Your task to perform on an android device: snooze an email in the gmail app Image 0: 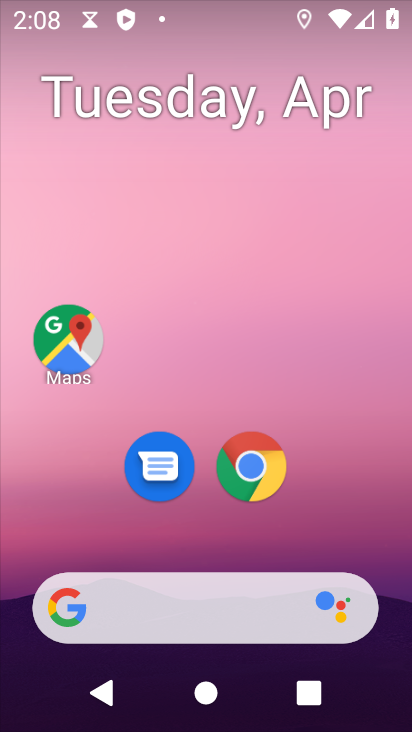
Step 0: drag from (334, 471) to (277, 57)
Your task to perform on an android device: snooze an email in the gmail app Image 1: 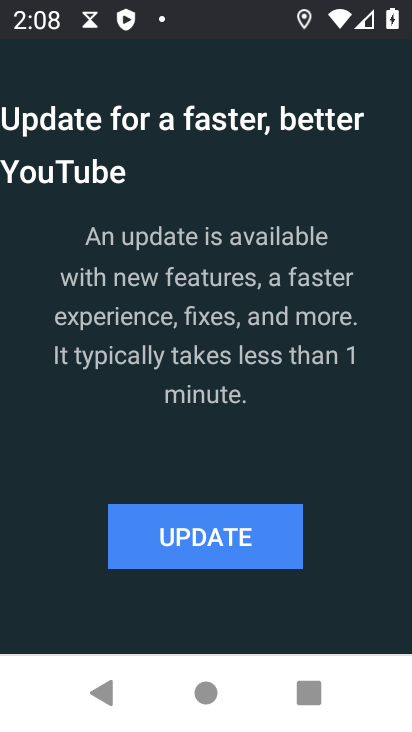
Step 1: press back button
Your task to perform on an android device: snooze an email in the gmail app Image 2: 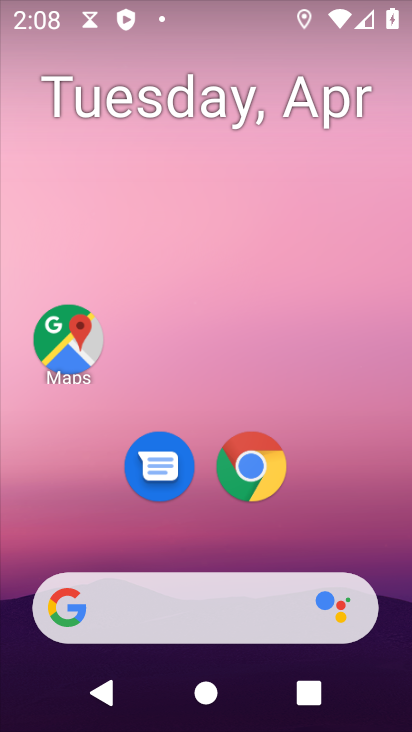
Step 2: drag from (373, 564) to (247, 16)
Your task to perform on an android device: snooze an email in the gmail app Image 3: 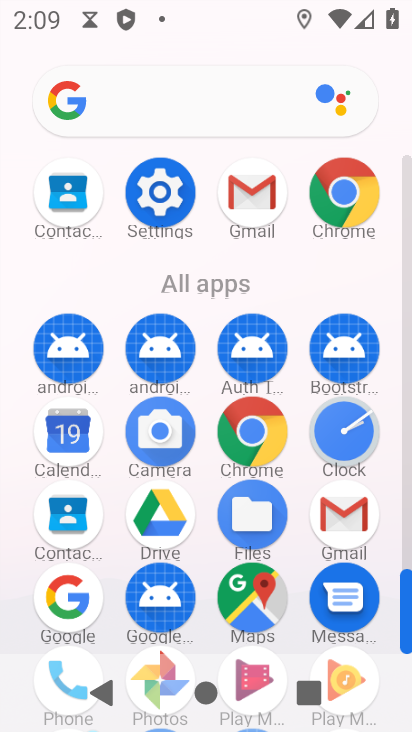
Step 3: click (251, 187)
Your task to perform on an android device: snooze an email in the gmail app Image 4: 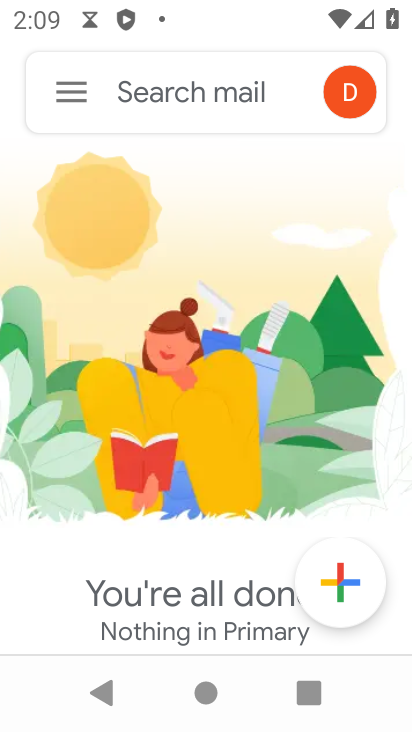
Step 4: click (79, 102)
Your task to perform on an android device: snooze an email in the gmail app Image 5: 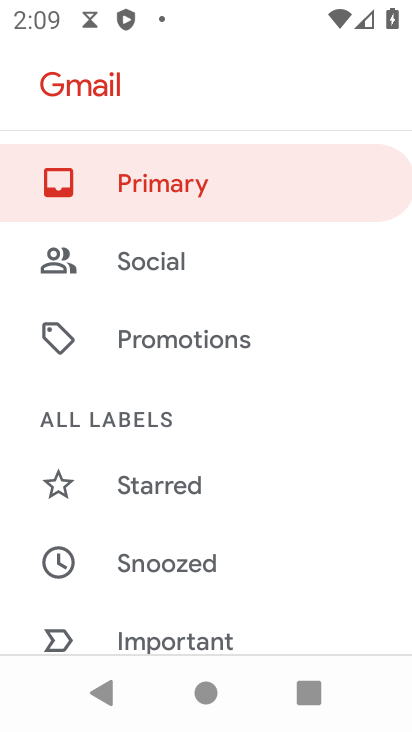
Step 5: drag from (239, 554) to (262, 233)
Your task to perform on an android device: snooze an email in the gmail app Image 6: 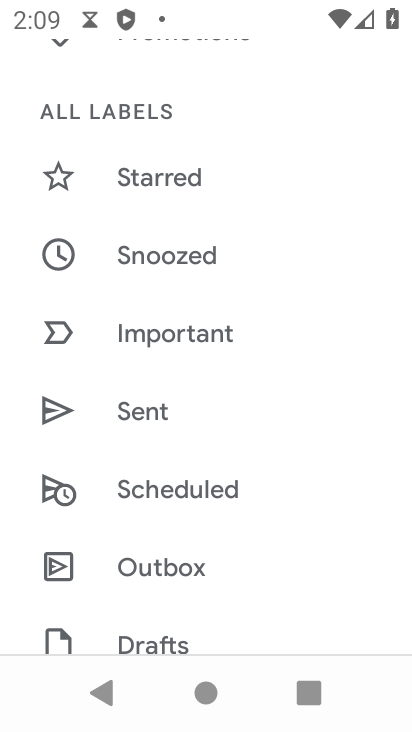
Step 6: drag from (239, 548) to (241, 120)
Your task to perform on an android device: snooze an email in the gmail app Image 7: 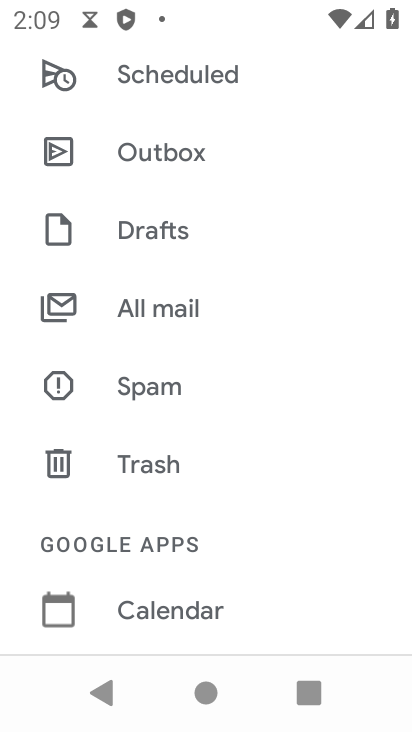
Step 7: drag from (241, 519) to (250, 129)
Your task to perform on an android device: snooze an email in the gmail app Image 8: 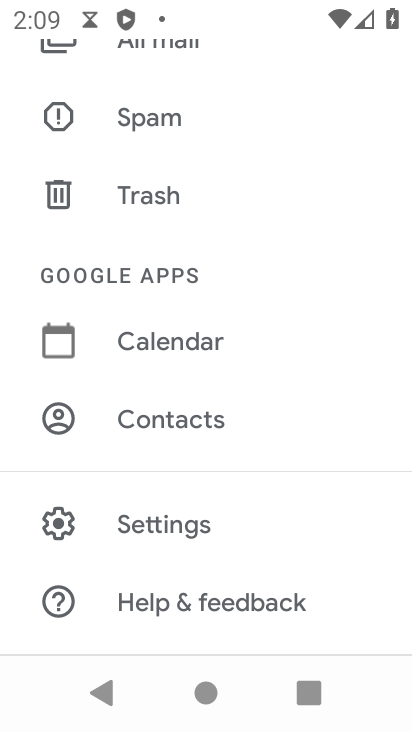
Step 8: drag from (214, 512) to (239, 179)
Your task to perform on an android device: snooze an email in the gmail app Image 9: 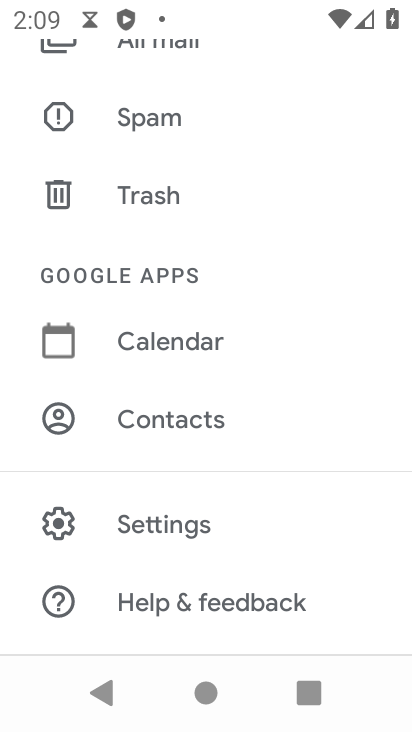
Step 9: click (189, 517)
Your task to perform on an android device: snooze an email in the gmail app Image 10: 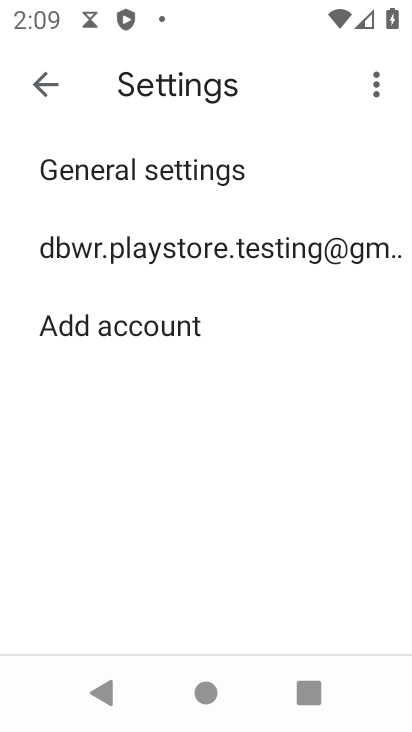
Step 10: click (241, 250)
Your task to perform on an android device: snooze an email in the gmail app Image 11: 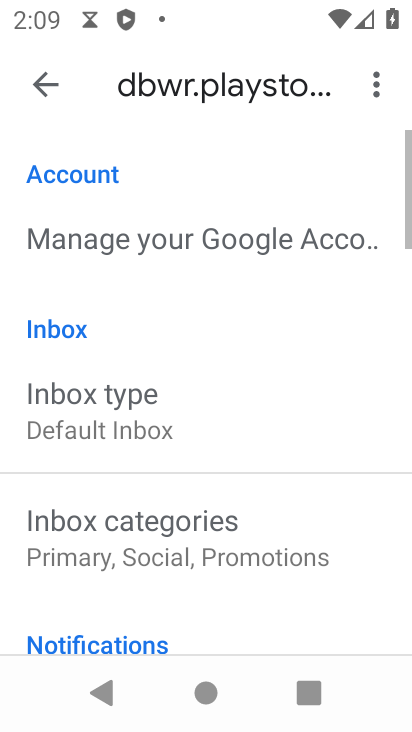
Step 11: click (81, 80)
Your task to perform on an android device: snooze an email in the gmail app Image 12: 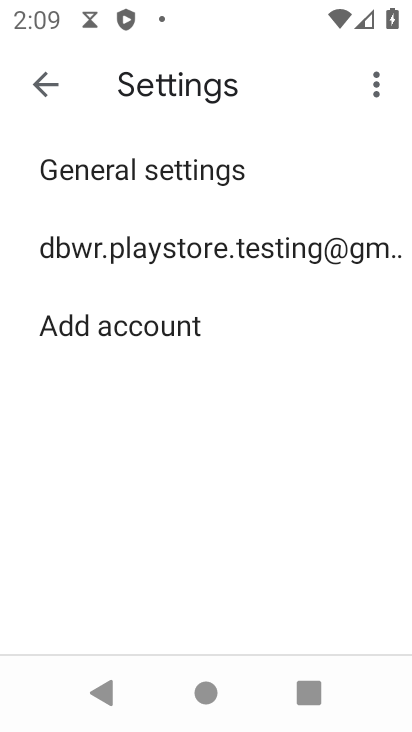
Step 12: click (81, 80)
Your task to perform on an android device: snooze an email in the gmail app Image 13: 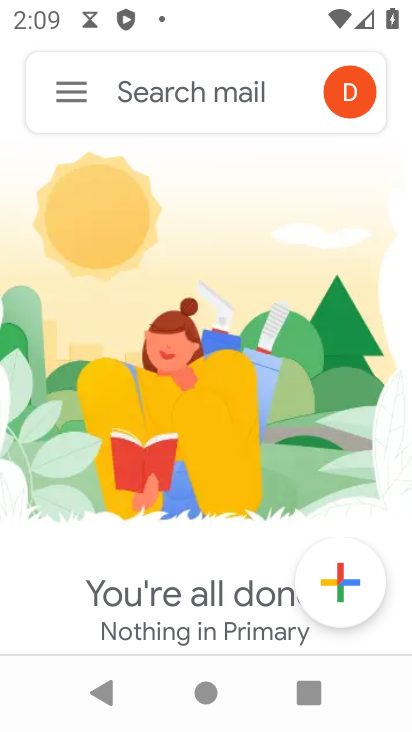
Step 13: click (55, 93)
Your task to perform on an android device: snooze an email in the gmail app Image 14: 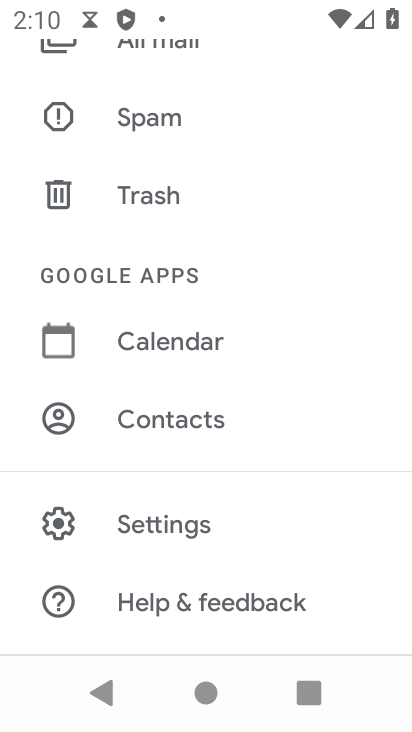
Step 14: drag from (248, 128) to (220, 466)
Your task to perform on an android device: snooze an email in the gmail app Image 15: 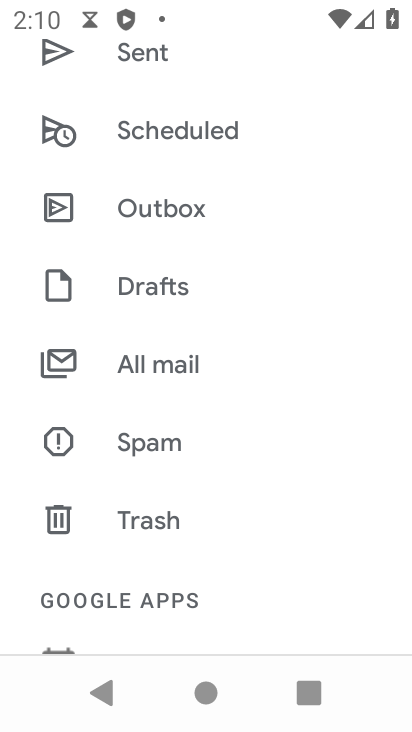
Step 15: click (197, 347)
Your task to perform on an android device: snooze an email in the gmail app Image 16: 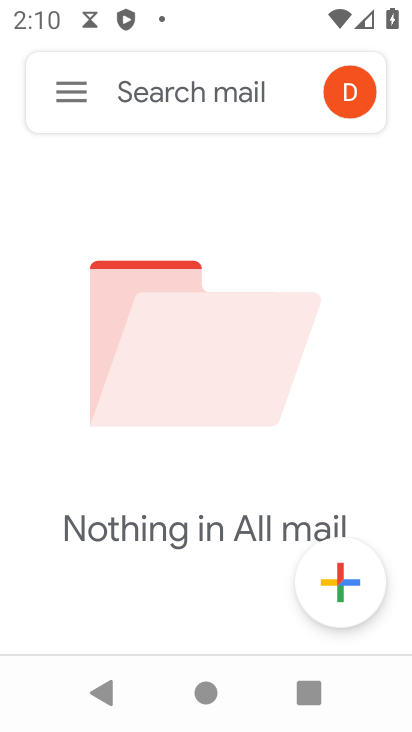
Step 16: click (89, 101)
Your task to perform on an android device: snooze an email in the gmail app Image 17: 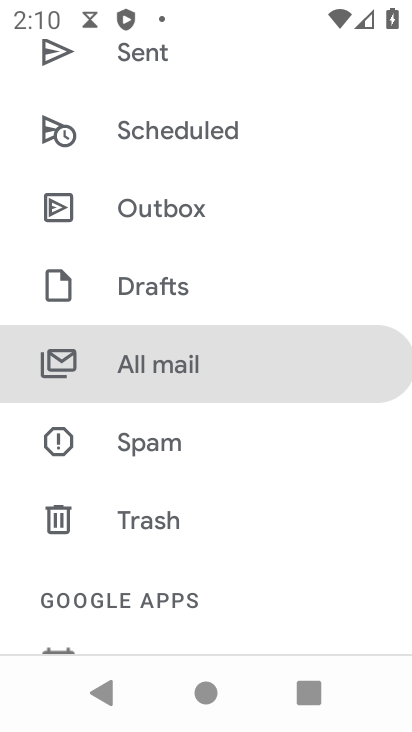
Step 17: task complete